Your task to perform on an android device: toggle improve location accuracy Image 0: 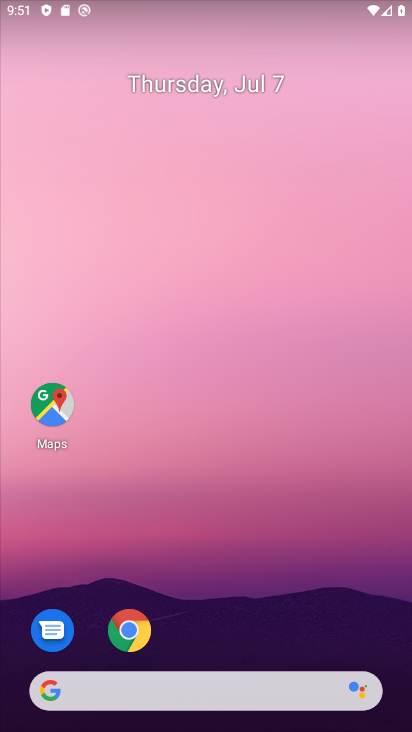
Step 0: press home button
Your task to perform on an android device: toggle improve location accuracy Image 1: 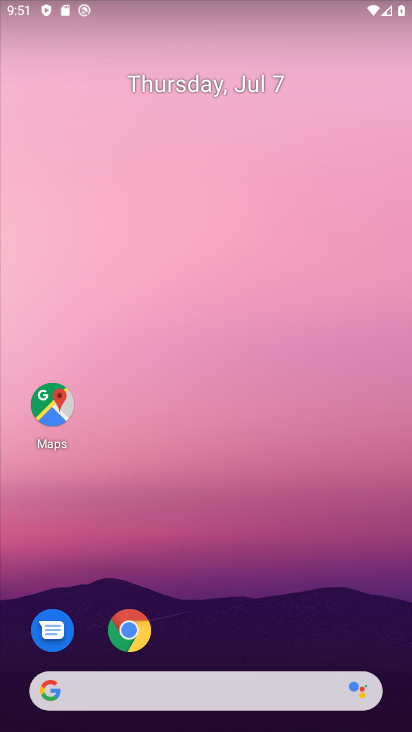
Step 1: drag from (223, 649) to (256, 51)
Your task to perform on an android device: toggle improve location accuracy Image 2: 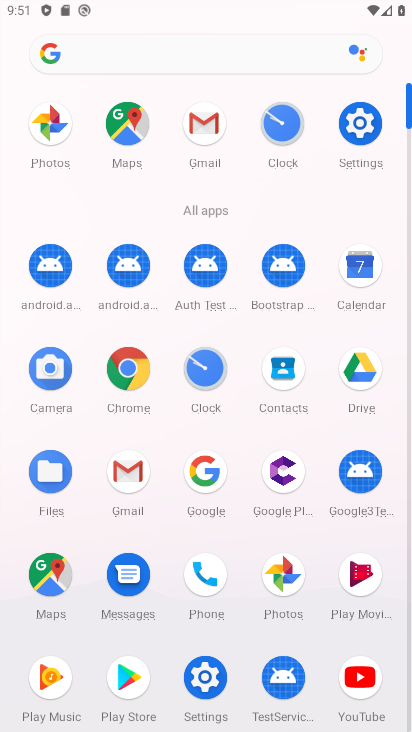
Step 2: click (359, 117)
Your task to perform on an android device: toggle improve location accuracy Image 3: 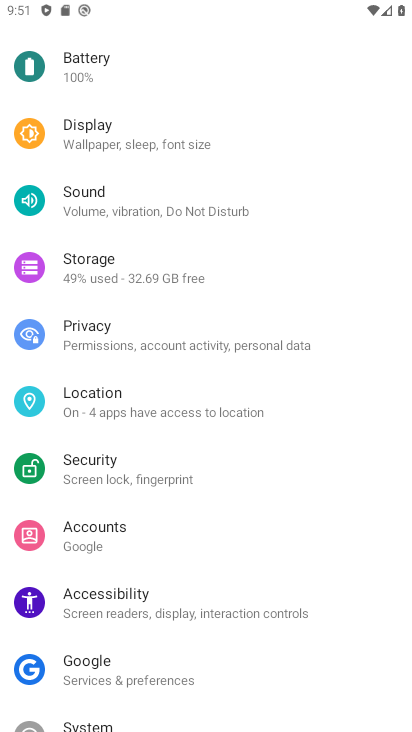
Step 3: click (140, 386)
Your task to perform on an android device: toggle improve location accuracy Image 4: 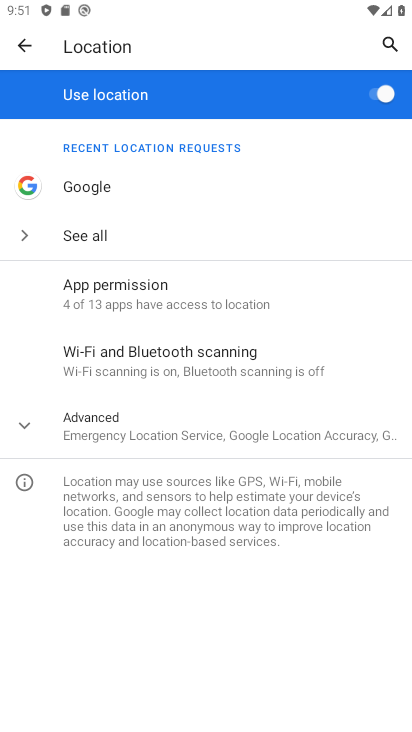
Step 4: click (104, 419)
Your task to perform on an android device: toggle improve location accuracy Image 5: 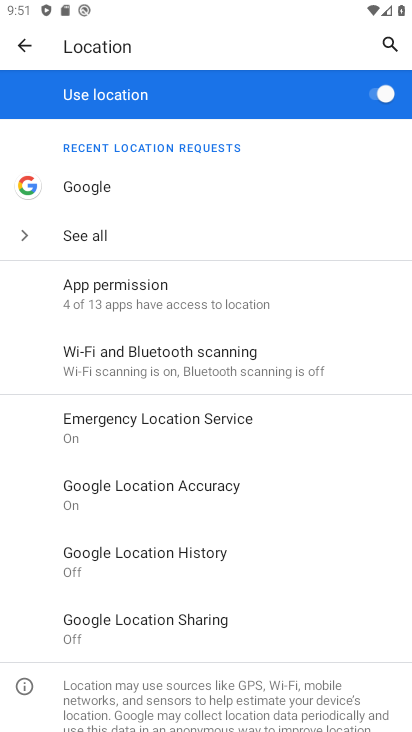
Step 5: click (217, 492)
Your task to perform on an android device: toggle improve location accuracy Image 6: 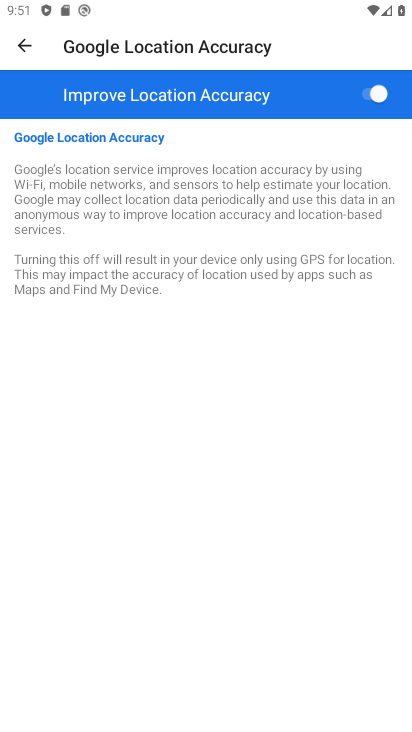
Step 6: click (371, 95)
Your task to perform on an android device: toggle improve location accuracy Image 7: 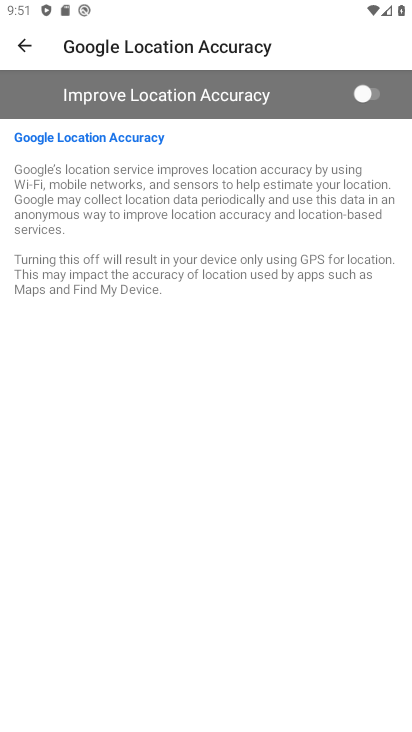
Step 7: task complete